Your task to perform on an android device: turn off smart reply in the gmail app Image 0: 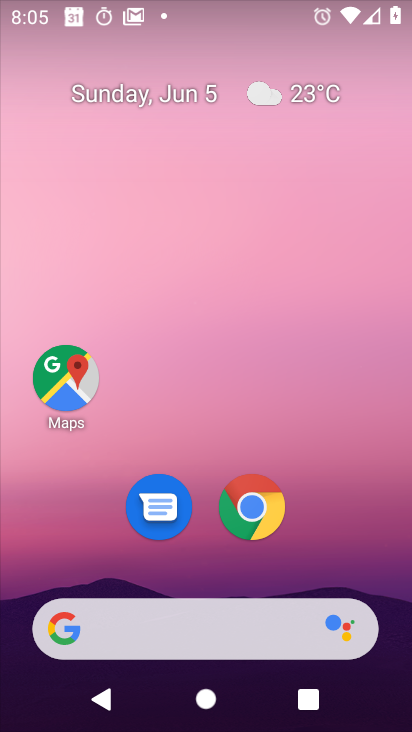
Step 0: drag from (258, 663) to (147, 138)
Your task to perform on an android device: turn off smart reply in the gmail app Image 1: 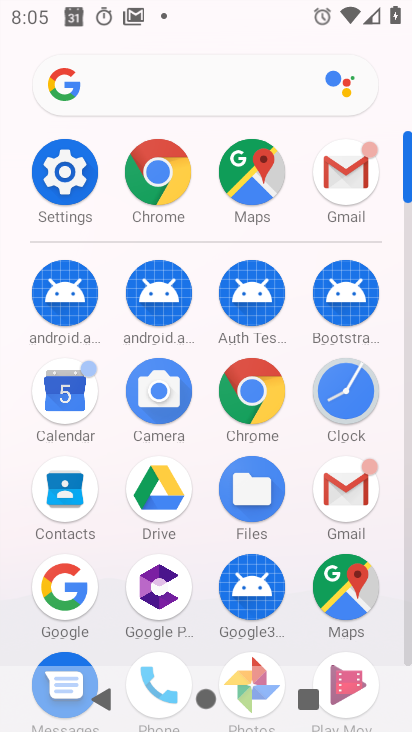
Step 1: click (350, 164)
Your task to perform on an android device: turn off smart reply in the gmail app Image 2: 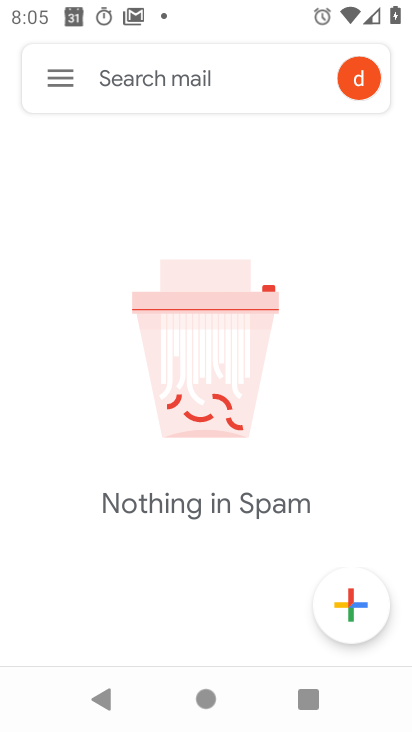
Step 2: click (50, 74)
Your task to perform on an android device: turn off smart reply in the gmail app Image 3: 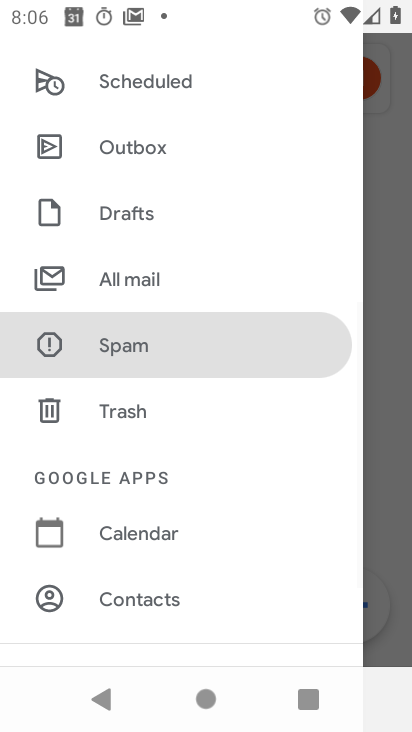
Step 3: drag from (173, 562) to (162, 294)
Your task to perform on an android device: turn off smart reply in the gmail app Image 4: 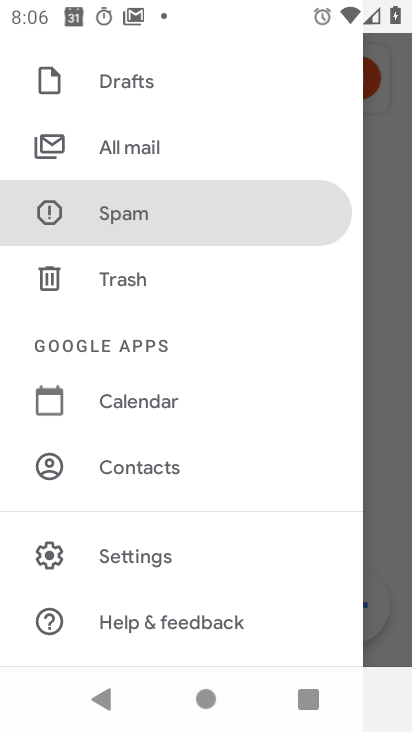
Step 4: click (151, 567)
Your task to perform on an android device: turn off smart reply in the gmail app Image 5: 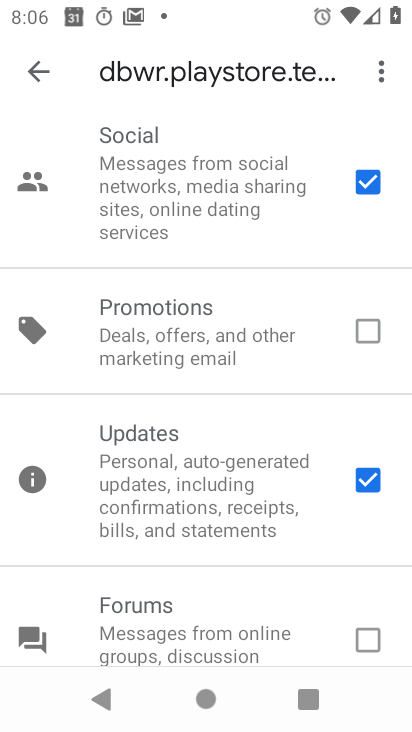
Step 5: click (36, 81)
Your task to perform on an android device: turn off smart reply in the gmail app Image 6: 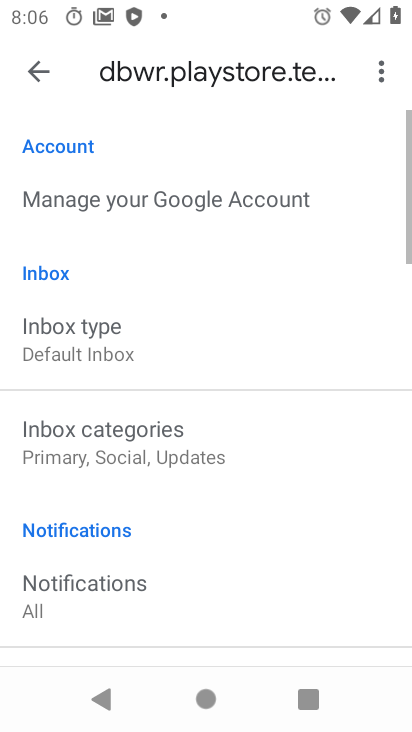
Step 6: drag from (228, 393) to (241, 51)
Your task to perform on an android device: turn off smart reply in the gmail app Image 7: 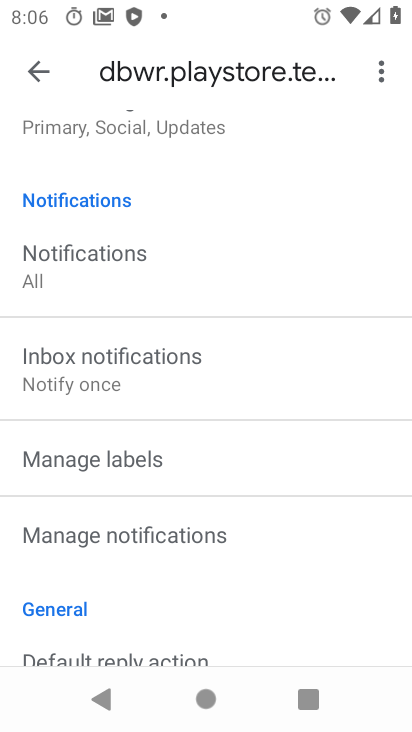
Step 7: drag from (237, 558) to (205, 128)
Your task to perform on an android device: turn off smart reply in the gmail app Image 8: 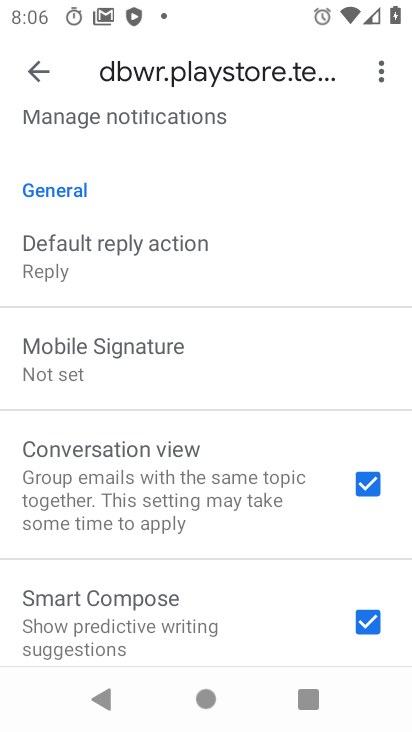
Step 8: drag from (221, 558) to (210, 235)
Your task to perform on an android device: turn off smart reply in the gmail app Image 9: 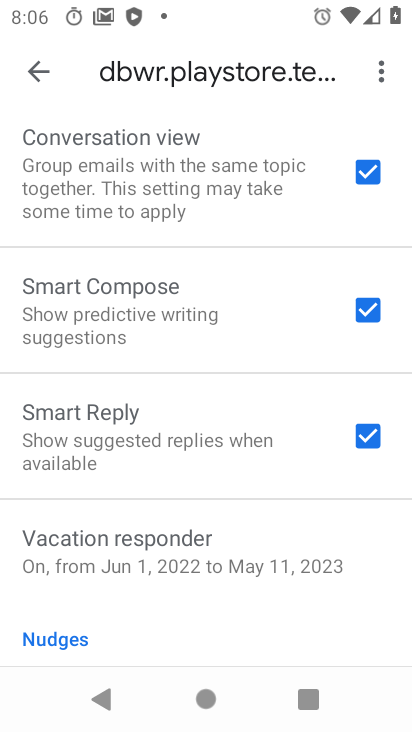
Step 9: click (353, 449)
Your task to perform on an android device: turn off smart reply in the gmail app Image 10: 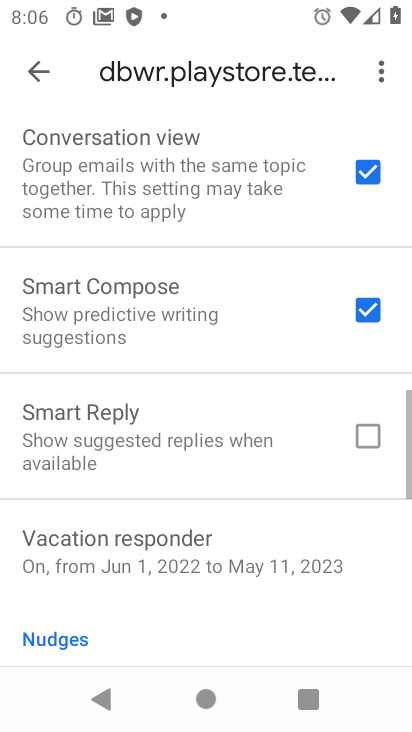
Step 10: task complete